Your task to perform on an android device: Open Youtube and go to the subscriptions tab Image 0: 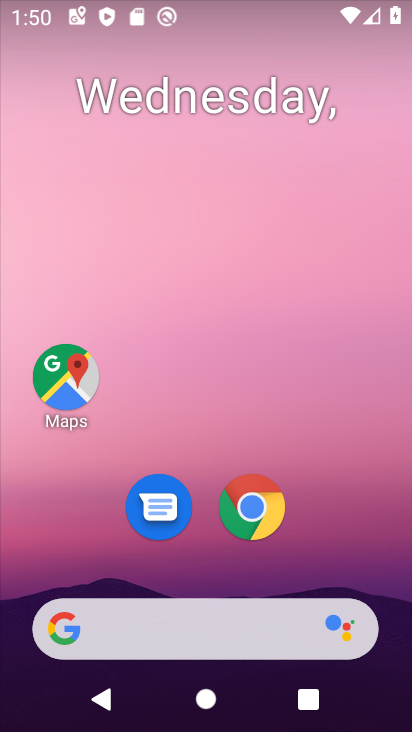
Step 0: drag from (321, 489) to (322, 184)
Your task to perform on an android device: Open Youtube and go to the subscriptions tab Image 1: 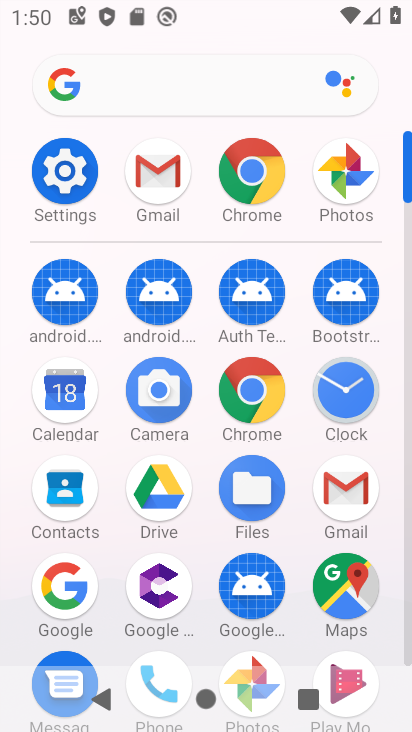
Step 1: drag from (224, 595) to (240, 285)
Your task to perform on an android device: Open Youtube and go to the subscriptions tab Image 2: 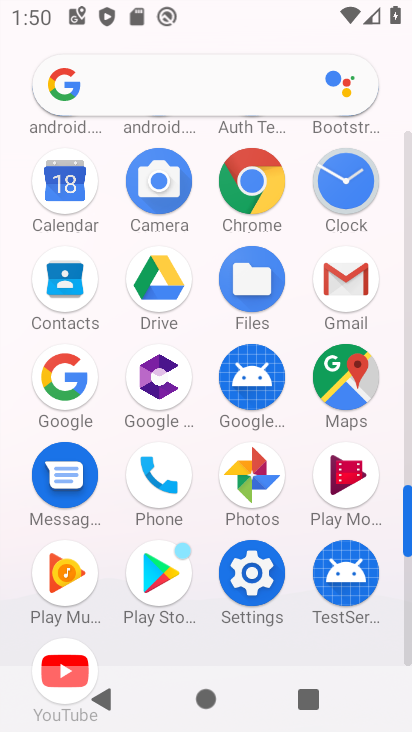
Step 2: click (70, 652)
Your task to perform on an android device: Open Youtube and go to the subscriptions tab Image 3: 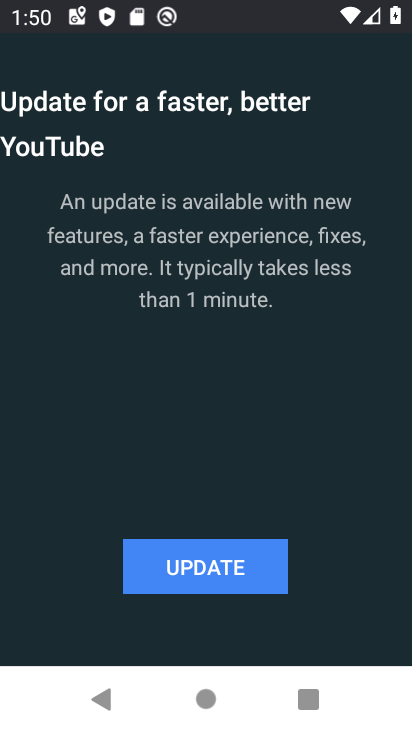
Step 3: click (176, 584)
Your task to perform on an android device: Open Youtube and go to the subscriptions tab Image 4: 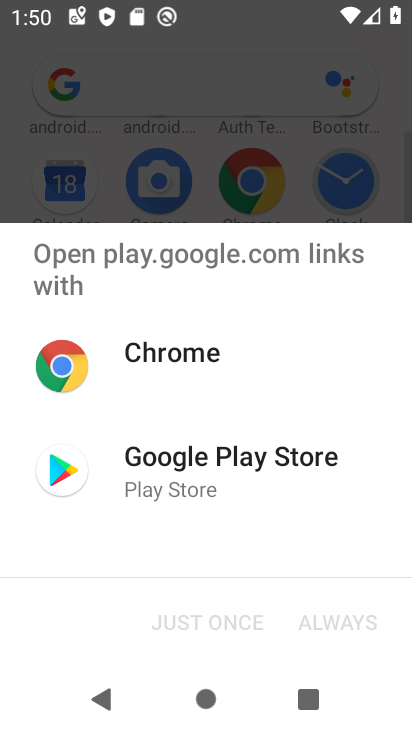
Step 4: click (201, 497)
Your task to perform on an android device: Open Youtube and go to the subscriptions tab Image 5: 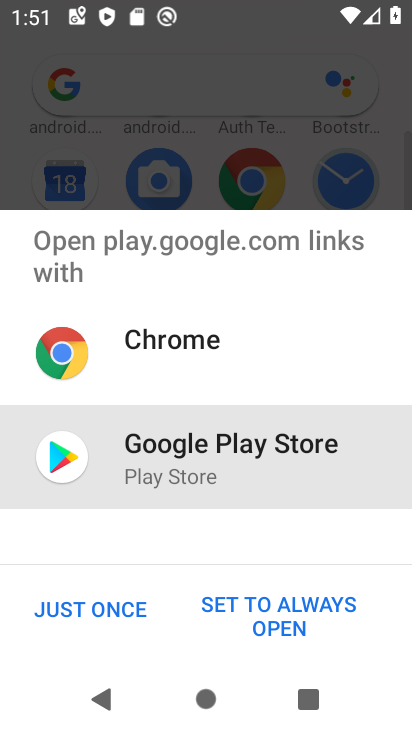
Step 5: click (127, 619)
Your task to perform on an android device: Open Youtube and go to the subscriptions tab Image 6: 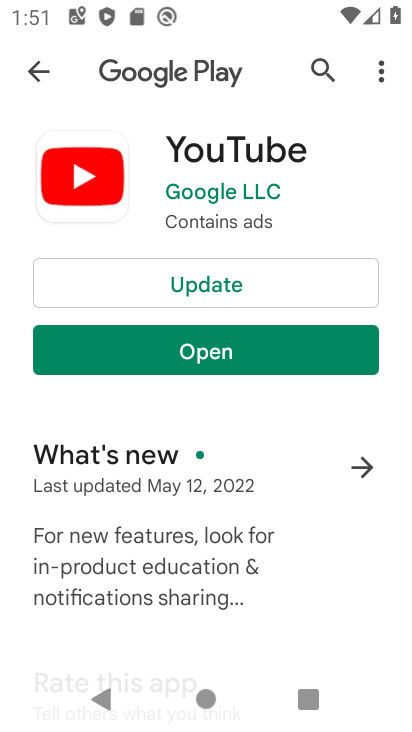
Step 6: click (275, 353)
Your task to perform on an android device: Open Youtube and go to the subscriptions tab Image 7: 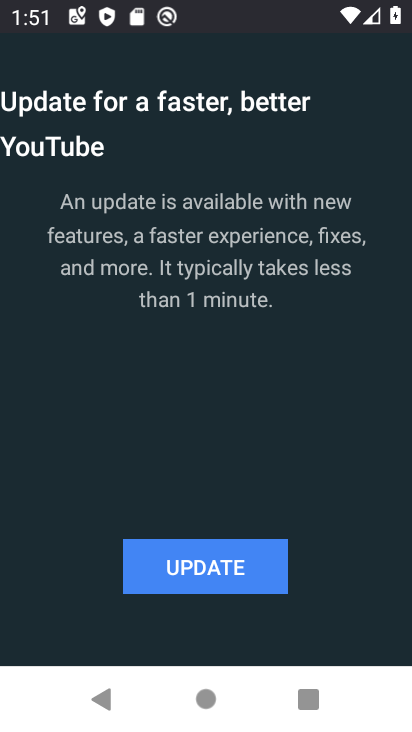
Step 7: click (245, 558)
Your task to perform on an android device: Open Youtube and go to the subscriptions tab Image 8: 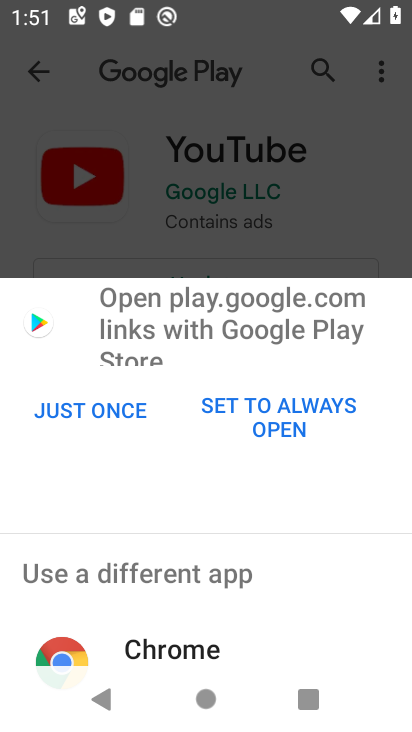
Step 8: click (99, 404)
Your task to perform on an android device: Open Youtube and go to the subscriptions tab Image 9: 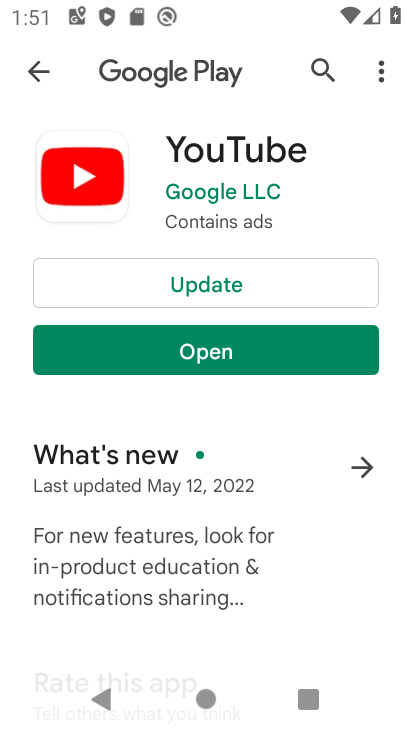
Step 9: click (127, 290)
Your task to perform on an android device: Open Youtube and go to the subscriptions tab Image 10: 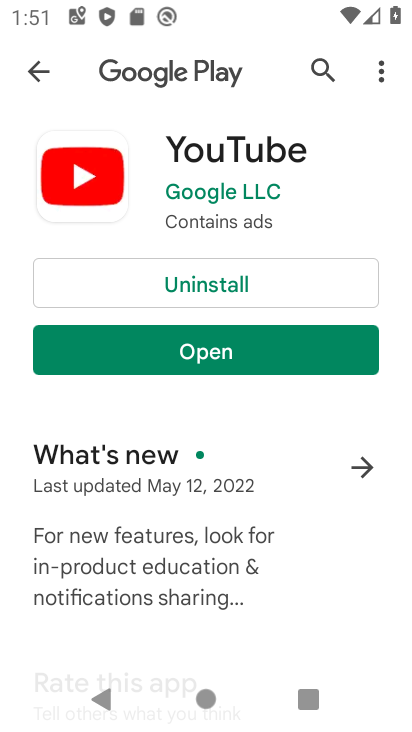
Step 10: click (157, 376)
Your task to perform on an android device: Open Youtube and go to the subscriptions tab Image 11: 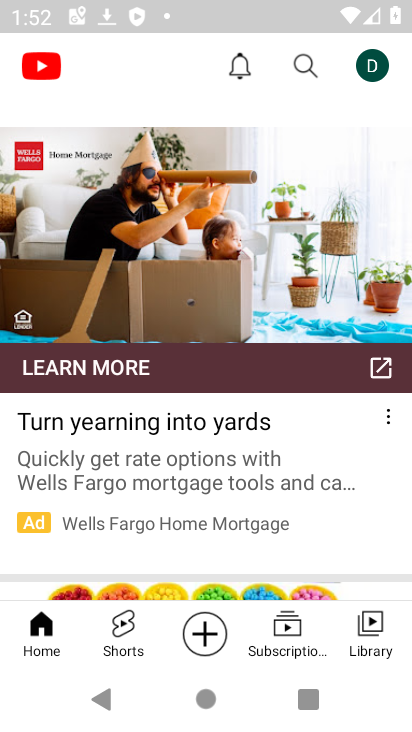
Step 11: click (301, 636)
Your task to perform on an android device: Open Youtube and go to the subscriptions tab Image 12: 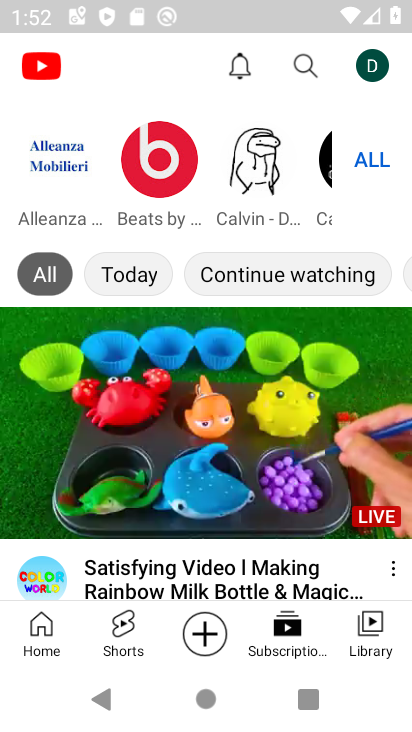
Step 12: task complete